Your task to perform on an android device: toggle notifications settings in the gmail app Image 0: 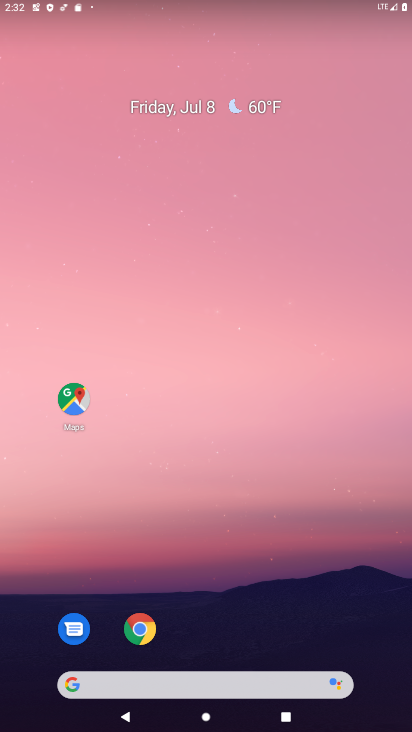
Step 0: drag from (199, 620) to (199, 213)
Your task to perform on an android device: toggle notifications settings in the gmail app Image 1: 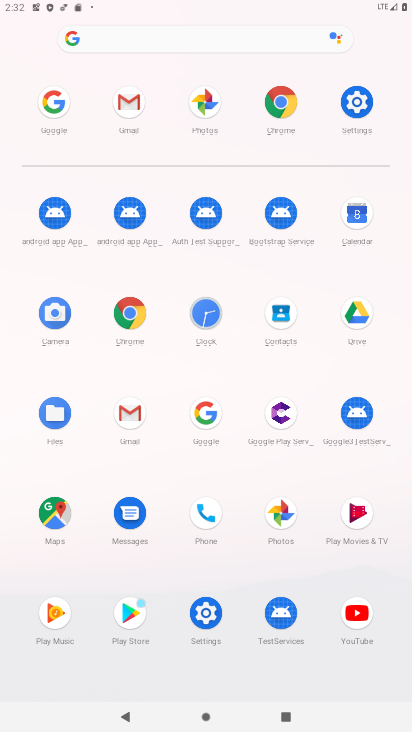
Step 1: click (129, 118)
Your task to perform on an android device: toggle notifications settings in the gmail app Image 2: 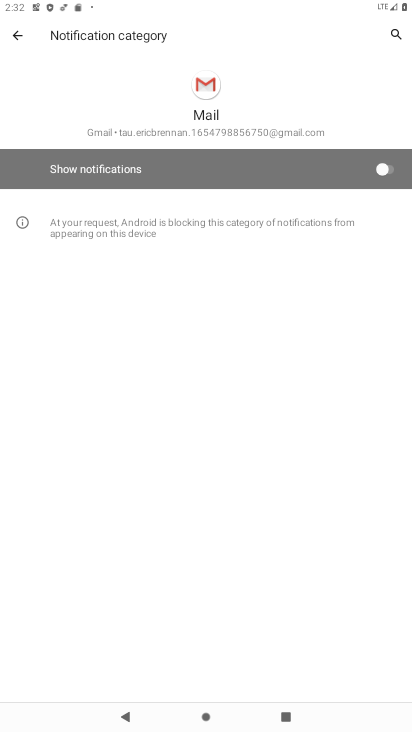
Step 2: click (386, 170)
Your task to perform on an android device: toggle notifications settings in the gmail app Image 3: 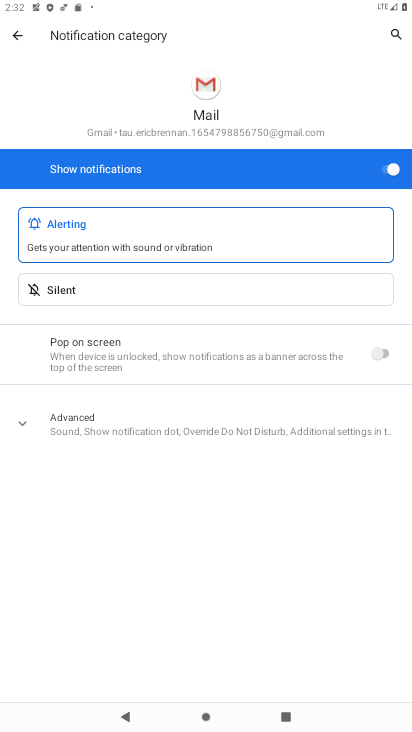
Step 3: task complete